Your task to perform on an android device: Show me popular games on the Play Store Image 0: 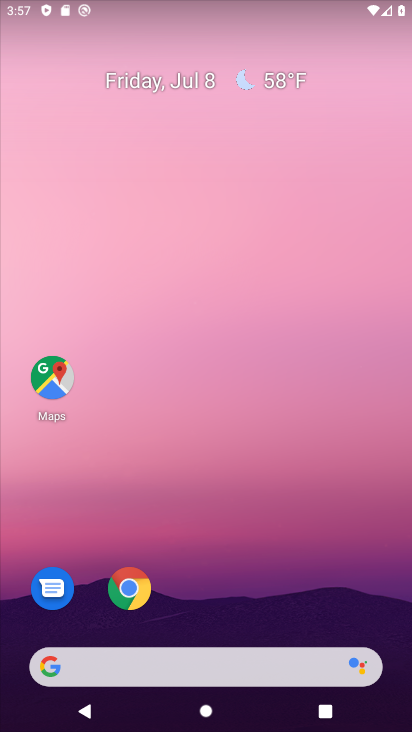
Step 0: drag from (192, 627) to (312, 80)
Your task to perform on an android device: Show me popular games on the Play Store Image 1: 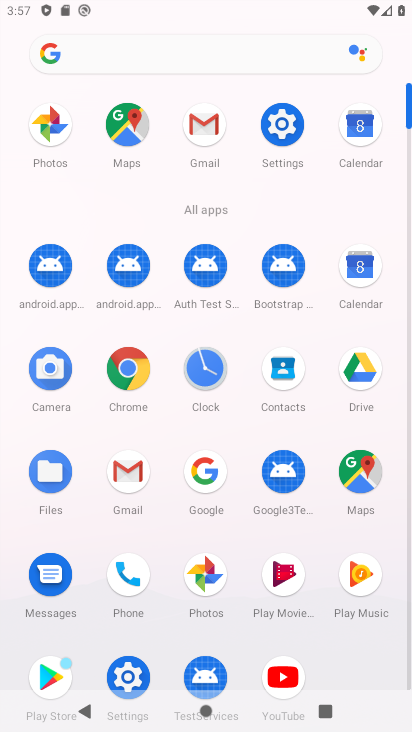
Step 1: click (64, 665)
Your task to perform on an android device: Show me popular games on the Play Store Image 2: 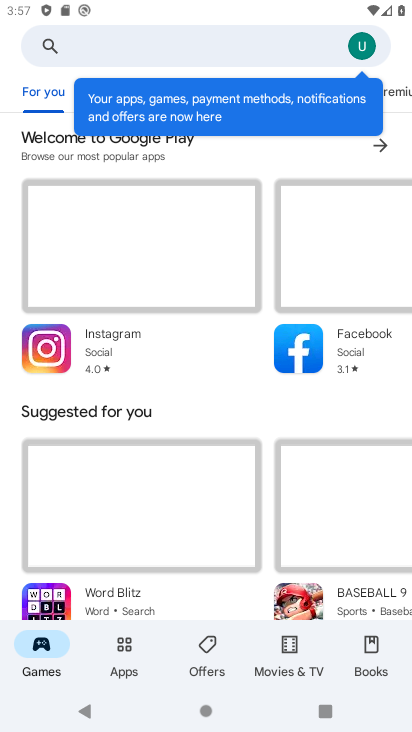
Step 2: drag from (200, 498) to (307, 104)
Your task to perform on an android device: Show me popular games on the Play Store Image 3: 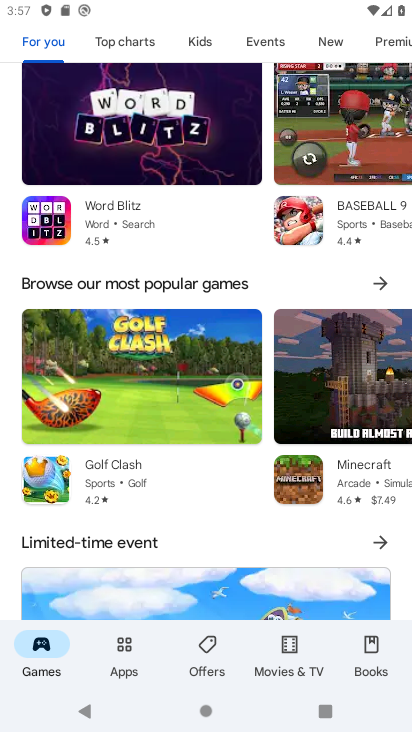
Step 3: drag from (183, 543) to (229, 396)
Your task to perform on an android device: Show me popular games on the Play Store Image 4: 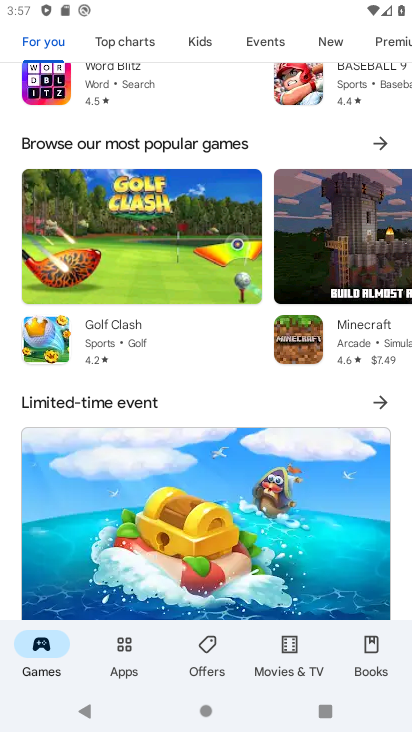
Step 4: click (384, 141)
Your task to perform on an android device: Show me popular games on the Play Store Image 5: 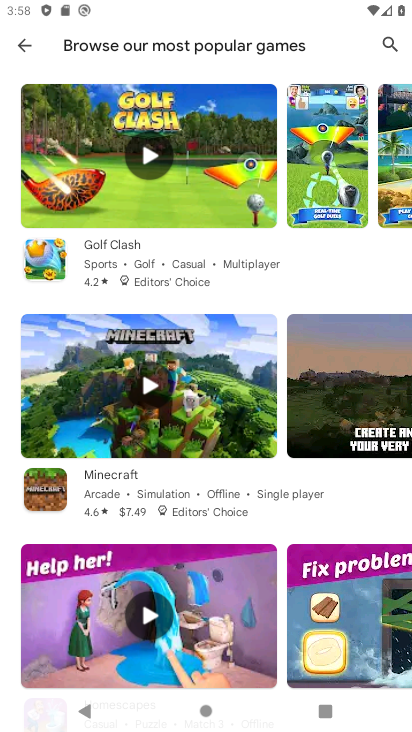
Step 5: task complete